Your task to perform on an android device: open chrome and create a bookmark for the current page Image 0: 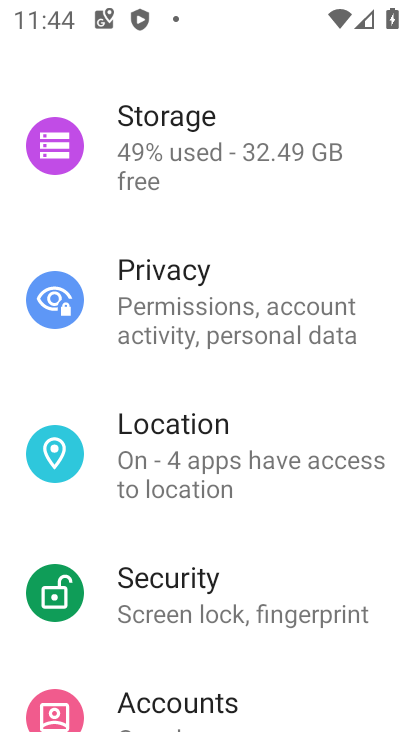
Step 0: press home button
Your task to perform on an android device: open chrome and create a bookmark for the current page Image 1: 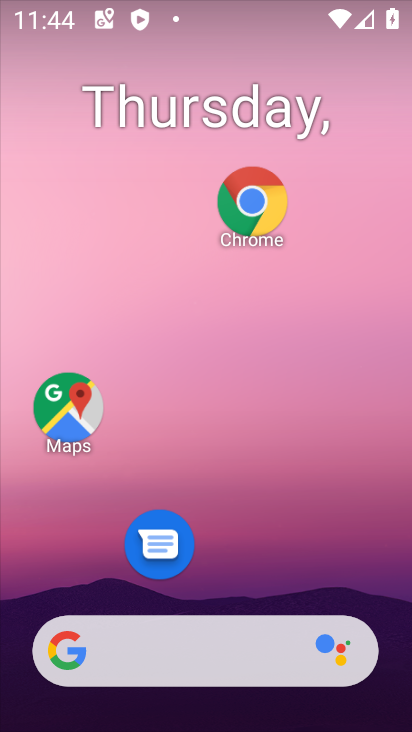
Step 1: click (247, 197)
Your task to perform on an android device: open chrome and create a bookmark for the current page Image 2: 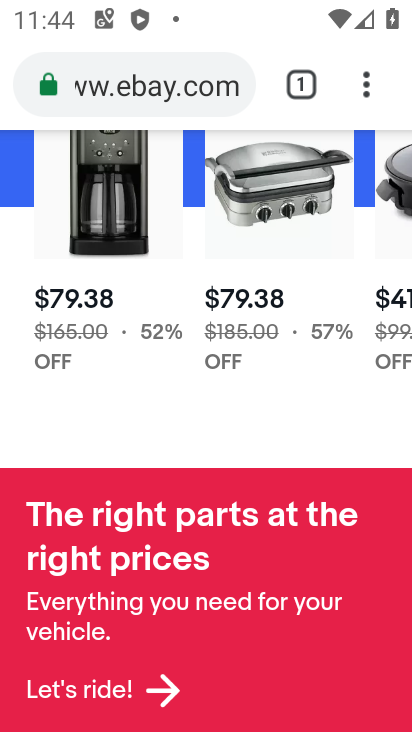
Step 2: click (369, 79)
Your task to perform on an android device: open chrome and create a bookmark for the current page Image 3: 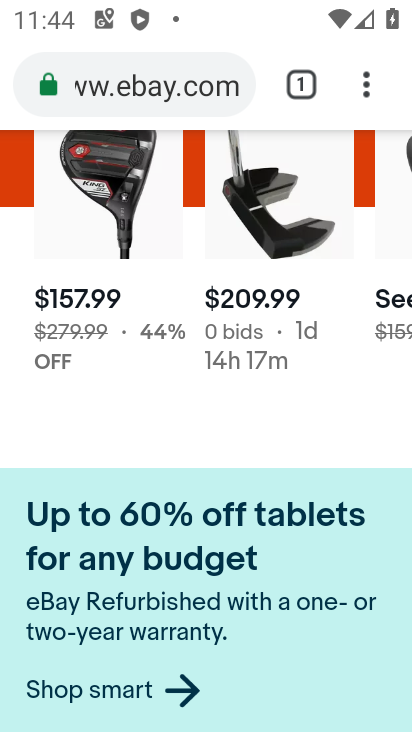
Step 3: click (369, 79)
Your task to perform on an android device: open chrome and create a bookmark for the current page Image 4: 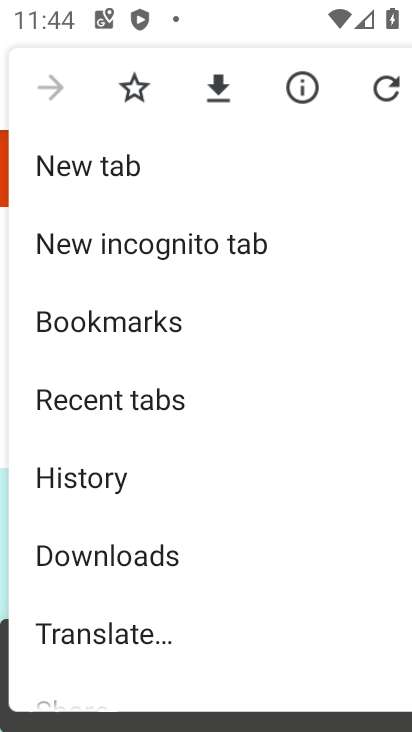
Step 4: click (189, 310)
Your task to perform on an android device: open chrome and create a bookmark for the current page Image 5: 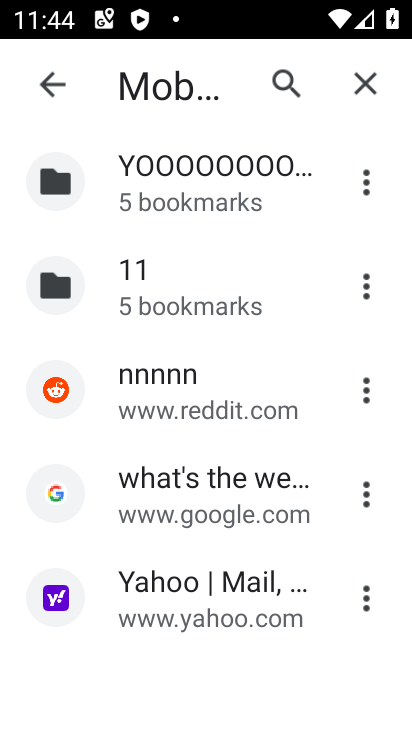
Step 5: click (67, 84)
Your task to perform on an android device: open chrome and create a bookmark for the current page Image 6: 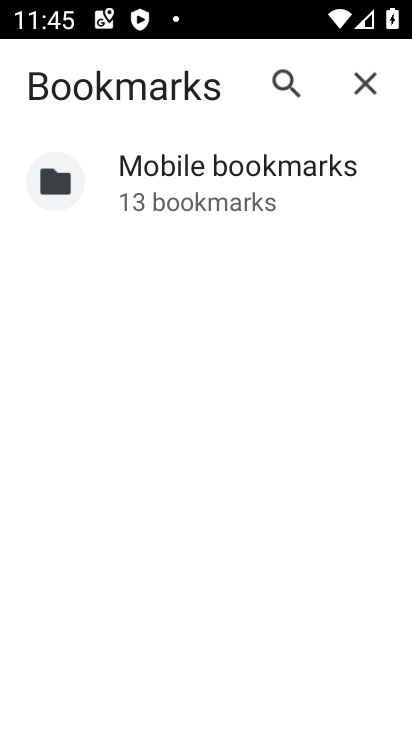
Step 6: click (361, 86)
Your task to perform on an android device: open chrome and create a bookmark for the current page Image 7: 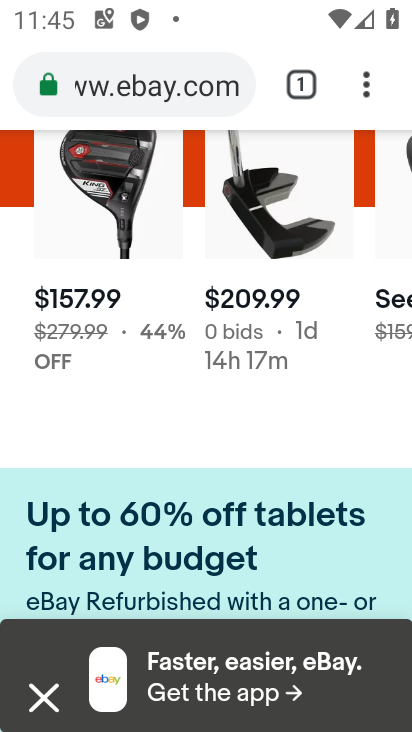
Step 7: click (291, 82)
Your task to perform on an android device: open chrome and create a bookmark for the current page Image 8: 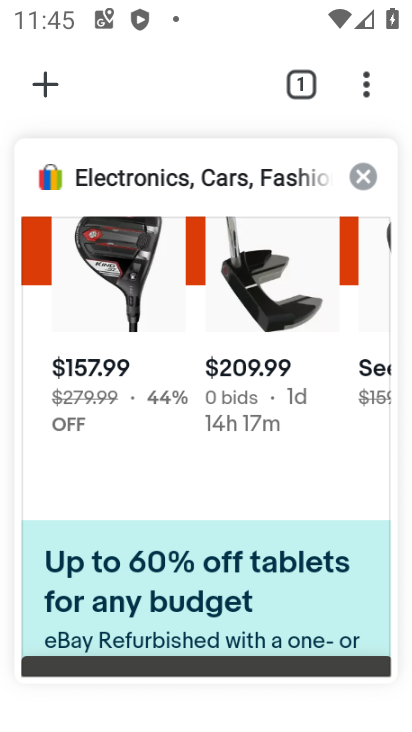
Step 8: click (45, 79)
Your task to perform on an android device: open chrome and create a bookmark for the current page Image 9: 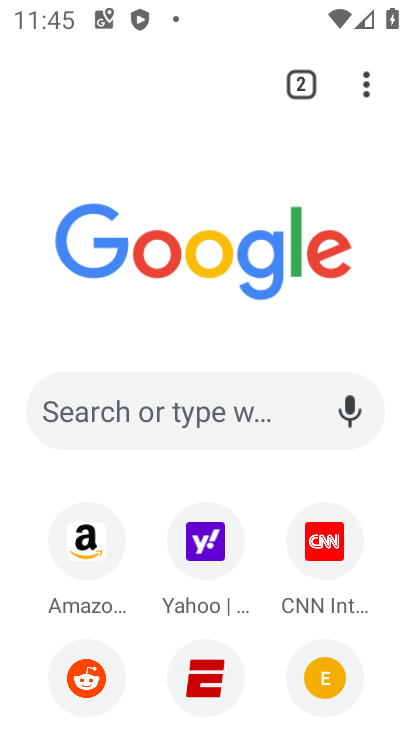
Step 9: type "opticles"
Your task to perform on an android device: open chrome and create a bookmark for the current page Image 10: 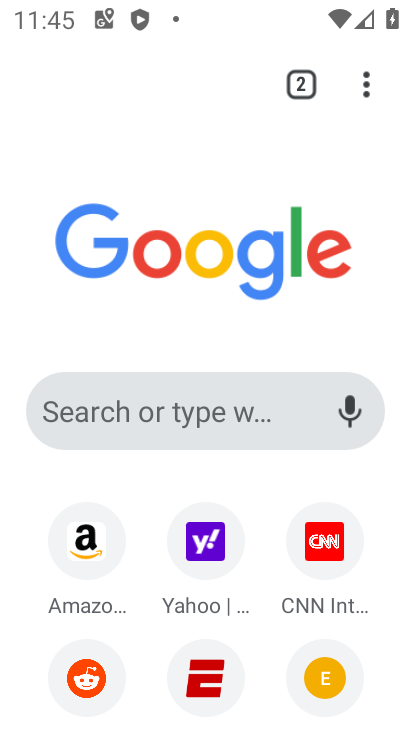
Step 10: click (183, 425)
Your task to perform on an android device: open chrome and create a bookmark for the current page Image 11: 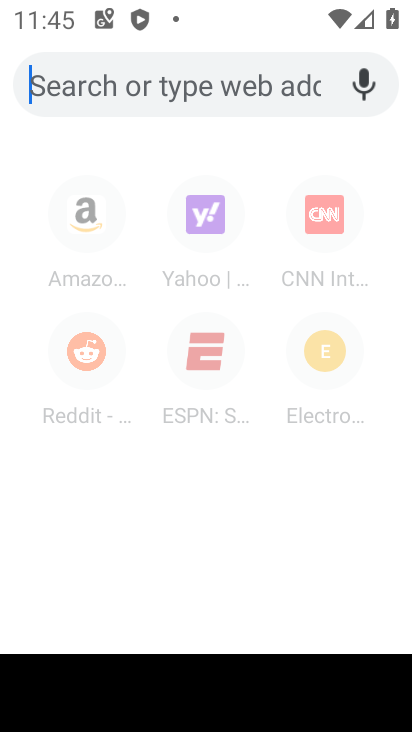
Step 11: type "opticles"
Your task to perform on an android device: open chrome and create a bookmark for the current page Image 12: 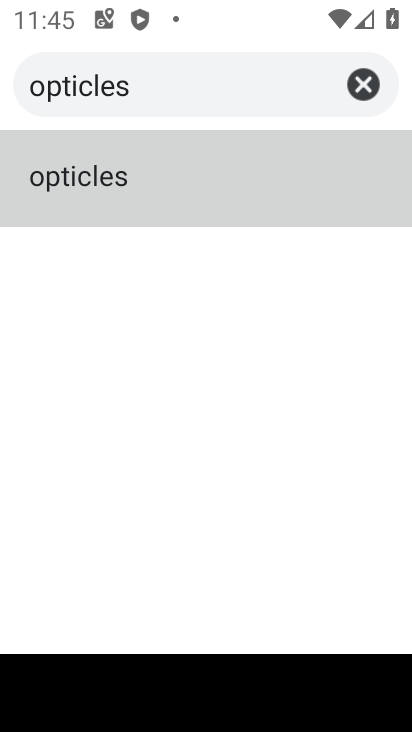
Step 12: click (107, 184)
Your task to perform on an android device: open chrome and create a bookmark for the current page Image 13: 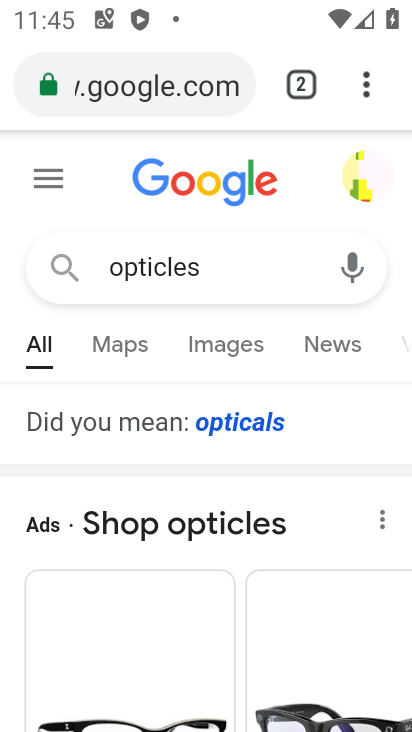
Step 13: drag from (238, 610) to (280, 167)
Your task to perform on an android device: open chrome and create a bookmark for the current page Image 14: 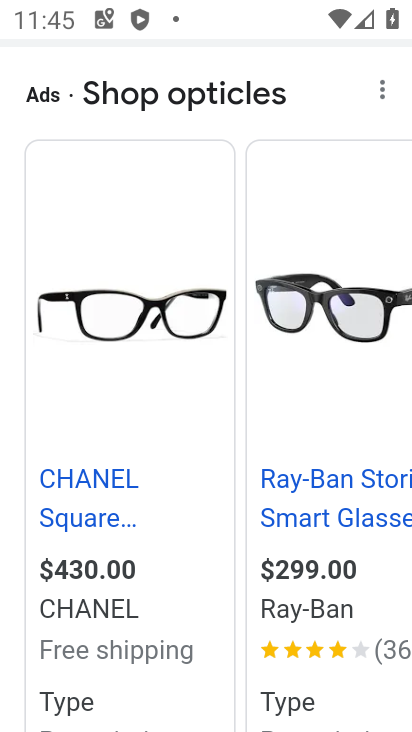
Step 14: drag from (238, 651) to (251, 142)
Your task to perform on an android device: open chrome and create a bookmark for the current page Image 15: 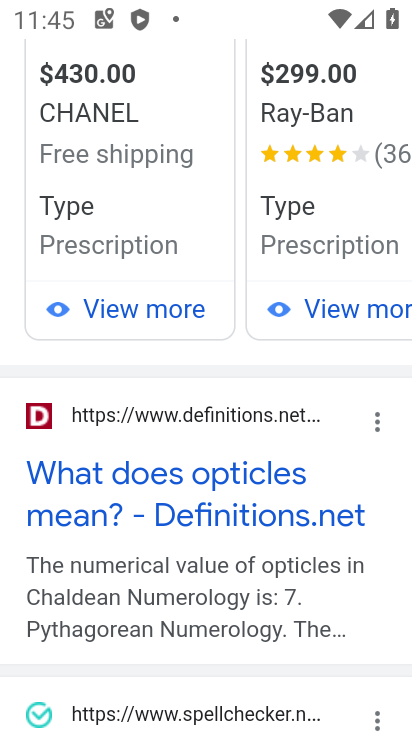
Step 15: drag from (286, 126) to (276, 716)
Your task to perform on an android device: open chrome and create a bookmark for the current page Image 16: 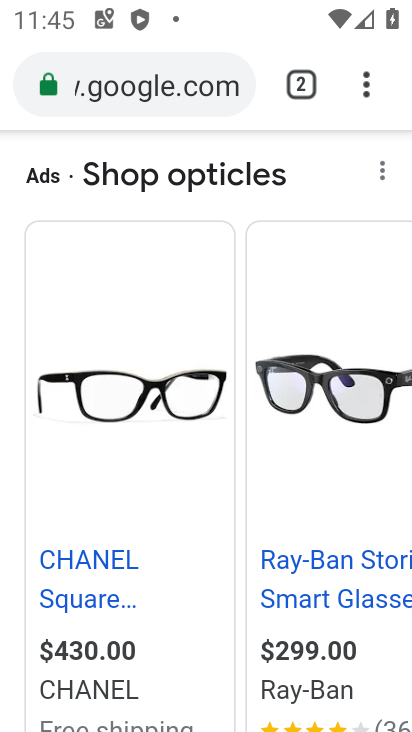
Step 16: click (363, 86)
Your task to perform on an android device: open chrome and create a bookmark for the current page Image 17: 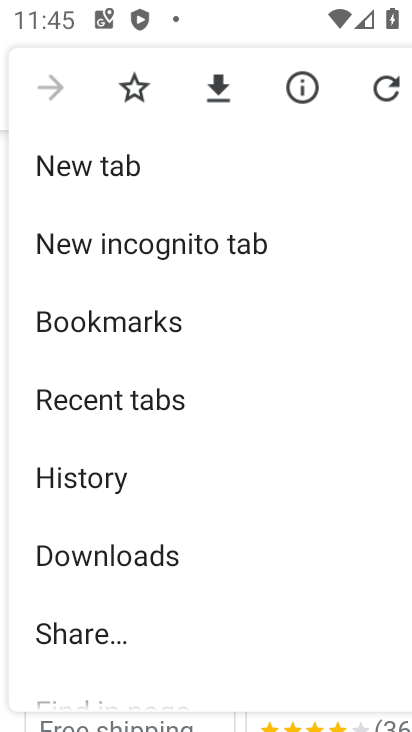
Step 17: click (130, 88)
Your task to perform on an android device: open chrome and create a bookmark for the current page Image 18: 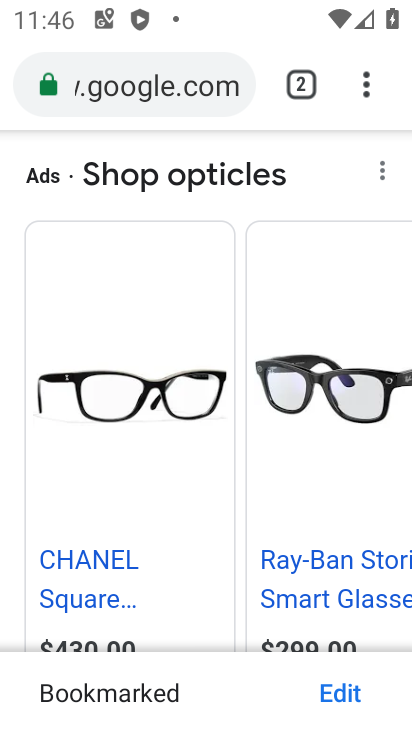
Step 18: task complete